Your task to perform on an android device: Show me the alarms in the clock app Image 0: 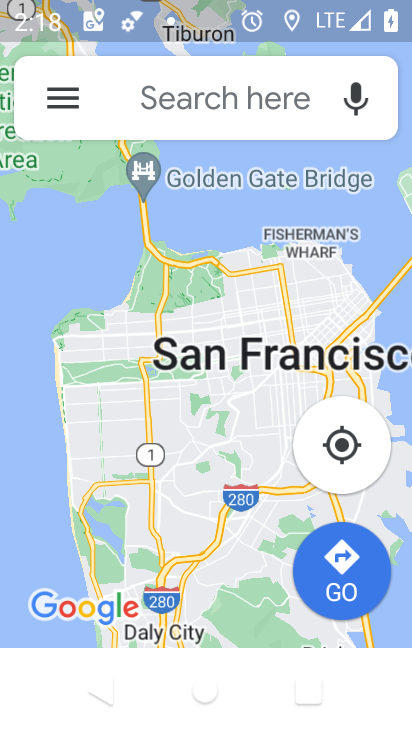
Step 0: press home button
Your task to perform on an android device: Show me the alarms in the clock app Image 1: 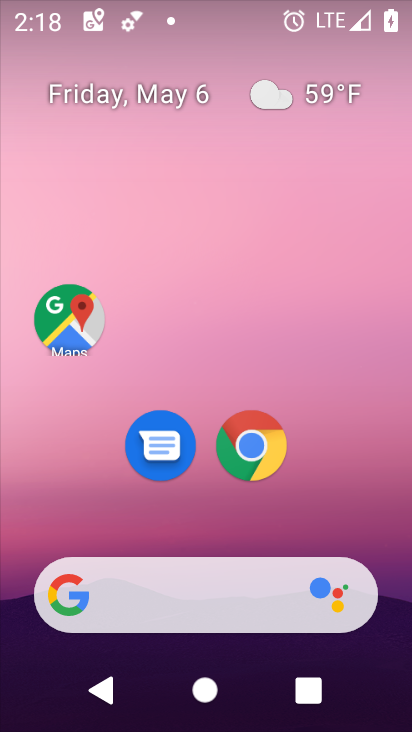
Step 1: drag from (355, 520) to (366, 62)
Your task to perform on an android device: Show me the alarms in the clock app Image 2: 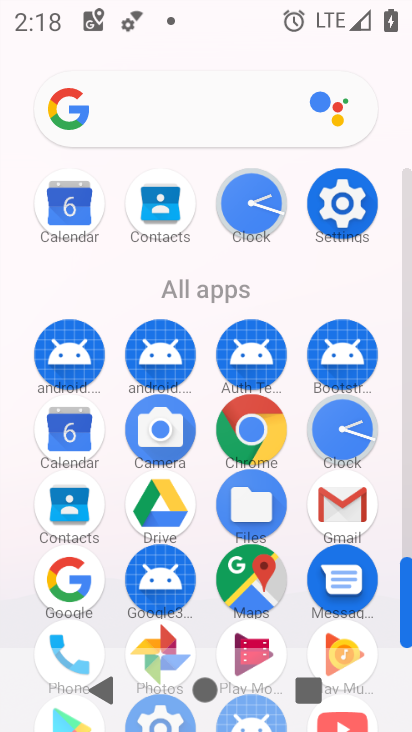
Step 2: click (328, 425)
Your task to perform on an android device: Show me the alarms in the clock app Image 3: 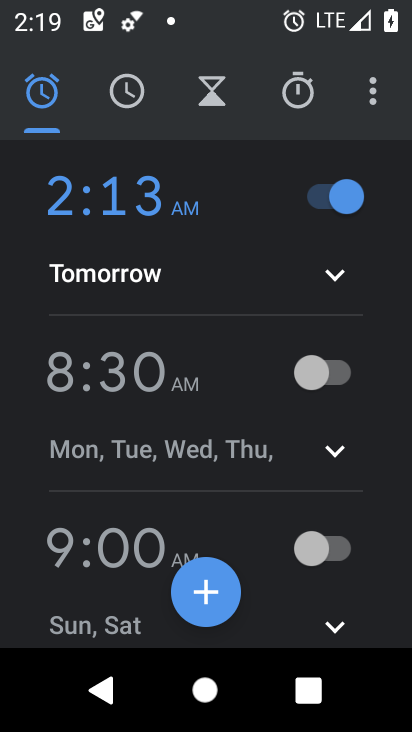
Step 3: task complete